Your task to perform on an android device: turn on notifications settings in the gmail app Image 0: 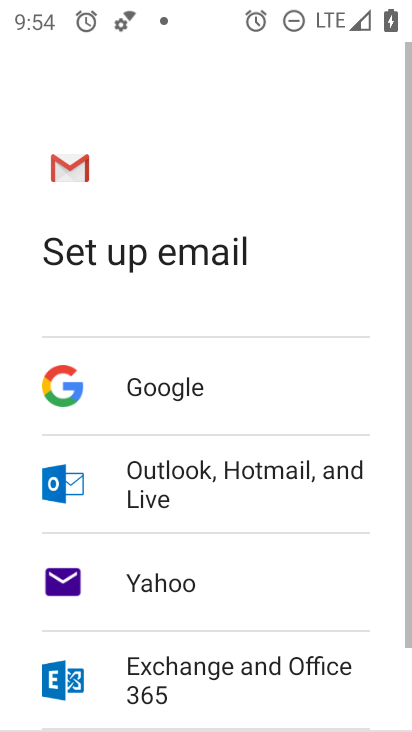
Step 0: press back button
Your task to perform on an android device: turn on notifications settings in the gmail app Image 1: 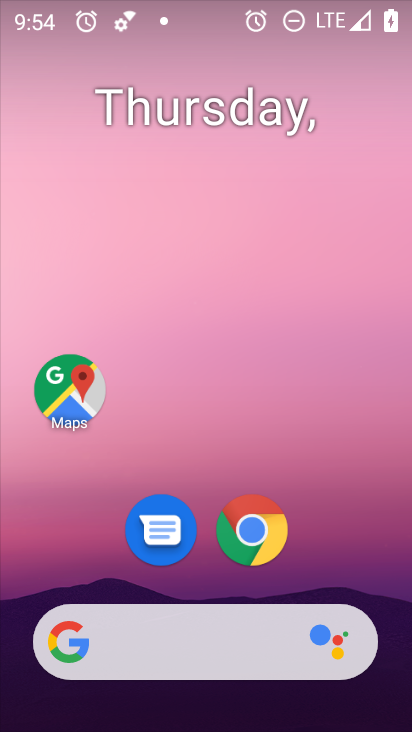
Step 1: drag from (299, 389) to (240, 10)
Your task to perform on an android device: turn on notifications settings in the gmail app Image 2: 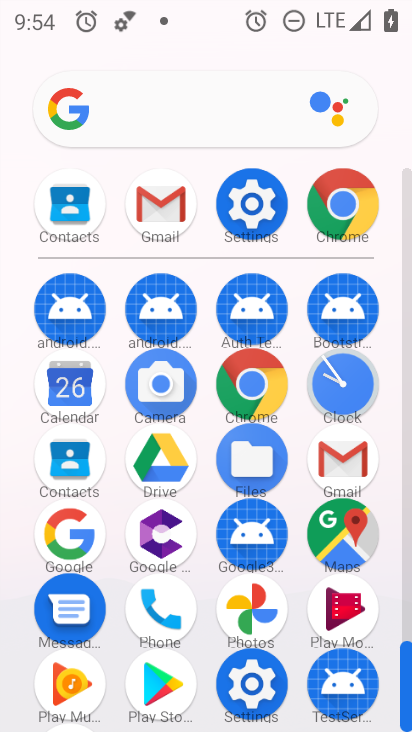
Step 2: click (343, 452)
Your task to perform on an android device: turn on notifications settings in the gmail app Image 3: 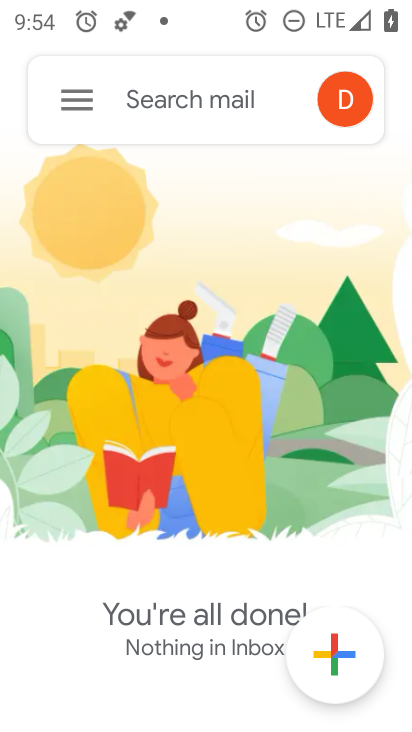
Step 3: click (76, 90)
Your task to perform on an android device: turn on notifications settings in the gmail app Image 4: 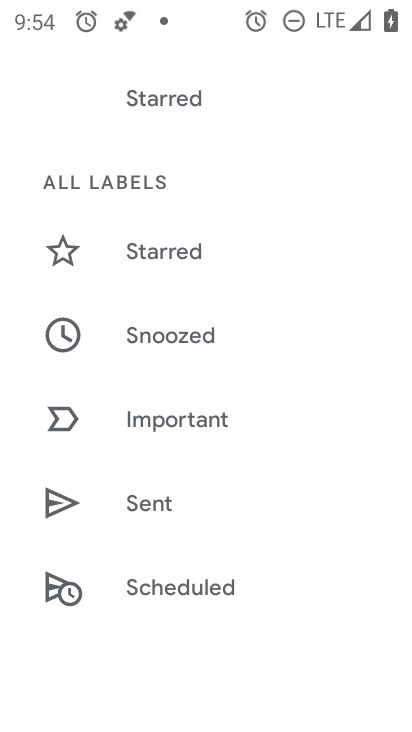
Step 4: drag from (260, 586) to (259, 74)
Your task to perform on an android device: turn on notifications settings in the gmail app Image 5: 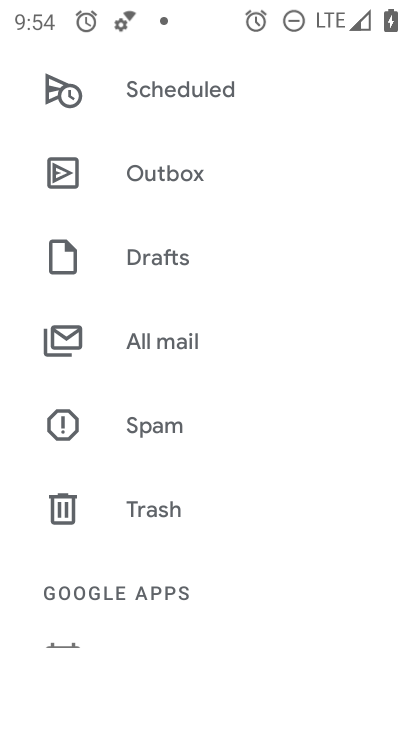
Step 5: drag from (259, 596) to (254, 154)
Your task to perform on an android device: turn on notifications settings in the gmail app Image 6: 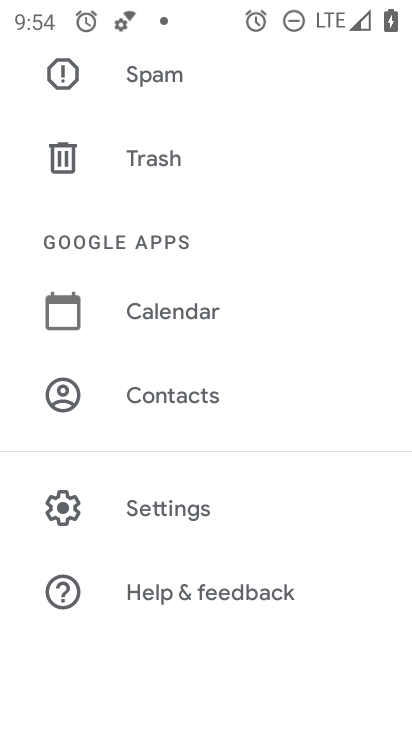
Step 6: click (184, 505)
Your task to perform on an android device: turn on notifications settings in the gmail app Image 7: 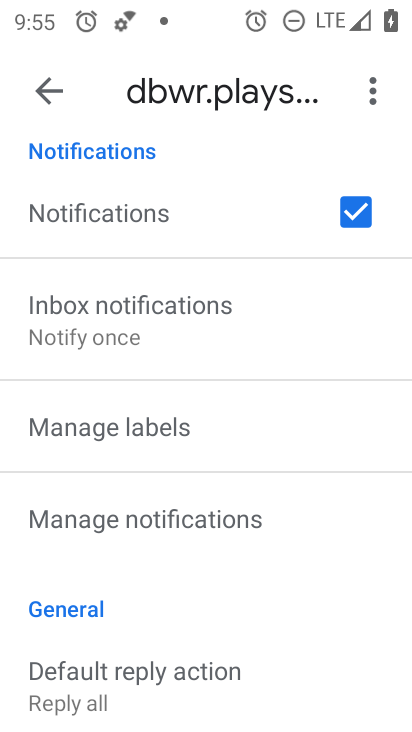
Step 7: click (188, 511)
Your task to perform on an android device: turn on notifications settings in the gmail app Image 8: 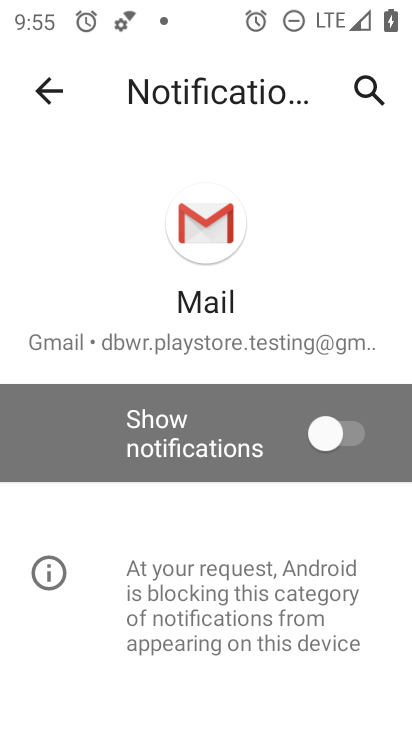
Step 8: click (347, 430)
Your task to perform on an android device: turn on notifications settings in the gmail app Image 9: 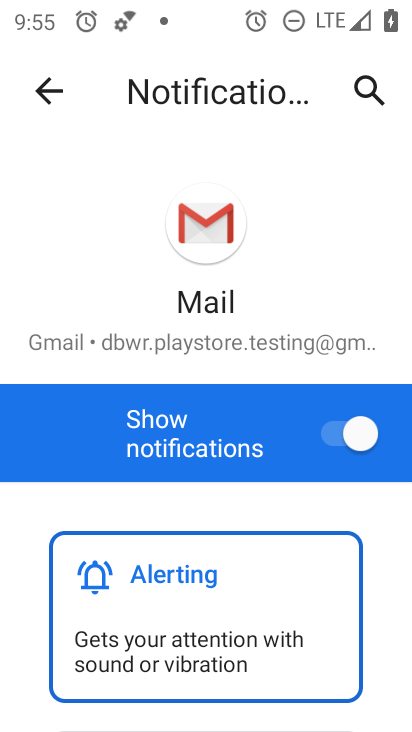
Step 9: task complete